Your task to perform on an android device: Show me recent news Image 0: 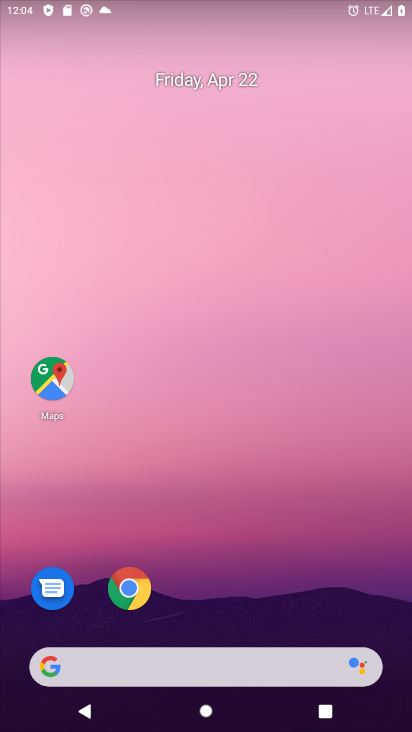
Step 0: drag from (255, 636) to (359, 107)
Your task to perform on an android device: Show me recent news Image 1: 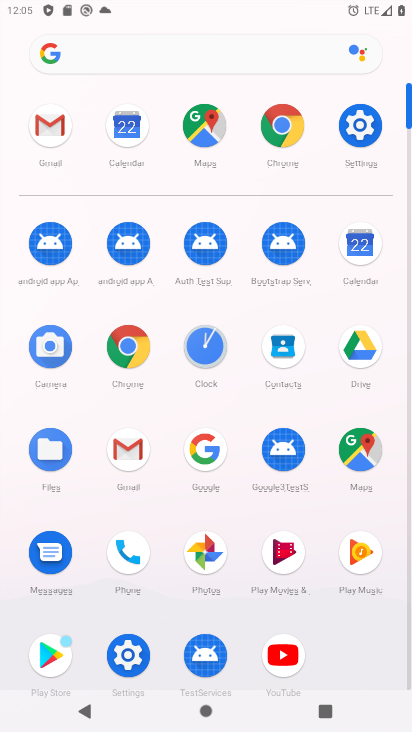
Step 1: click (159, 57)
Your task to perform on an android device: Show me recent news Image 2: 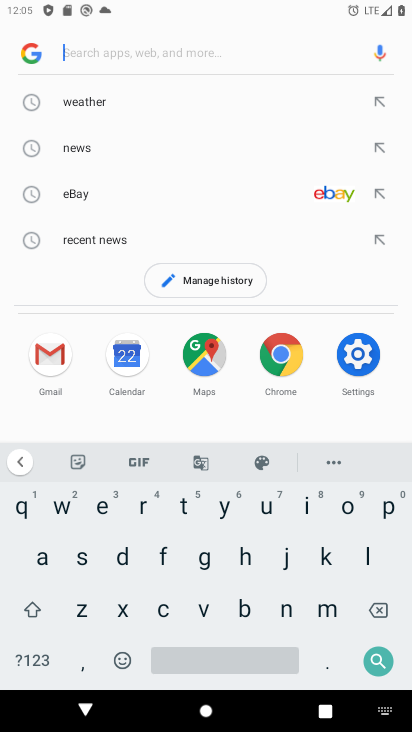
Step 2: click (80, 236)
Your task to perform on an android device: Show me recent news Image 3: 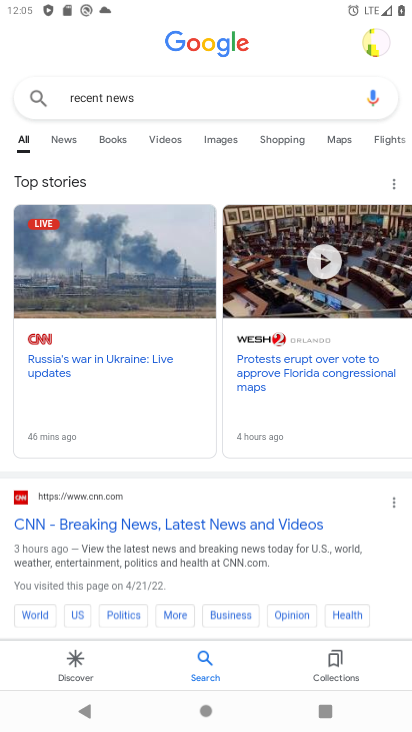
Step 3: task complete